Your task to perform on an android device: Open Youtube and go to the subscriptions tab Image 0: 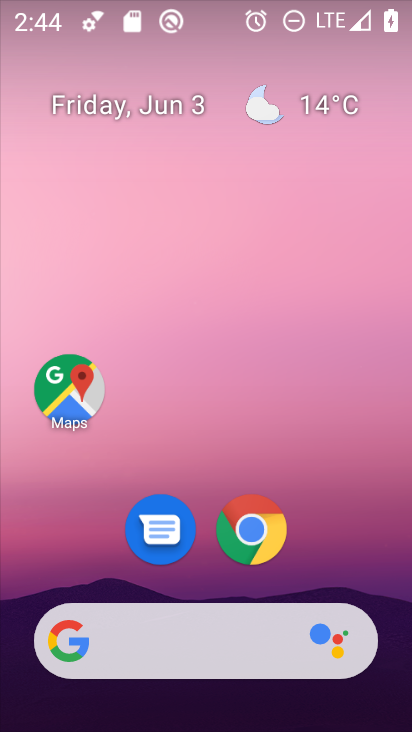
Step 0: drag from (387, 563) to (369, 263)
Your task to perform on an android device: Open Youtube and go to the subscriptions tab Image 1: 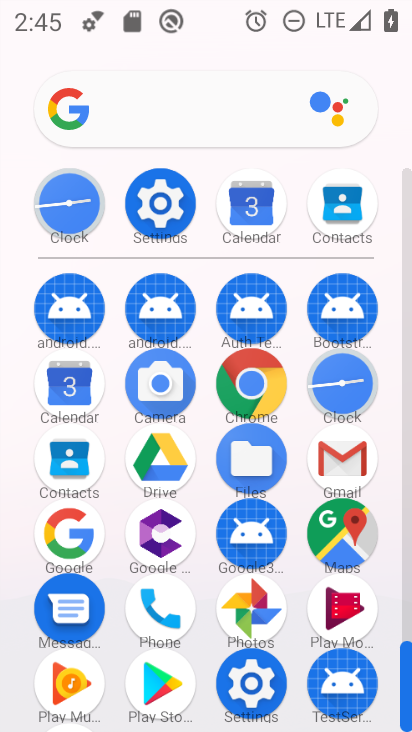
Step 1: drag from (381, 555) to (78, 688)
Your task to perform on an android device: Open Youtube and go to the subscriptions tab Image 2: 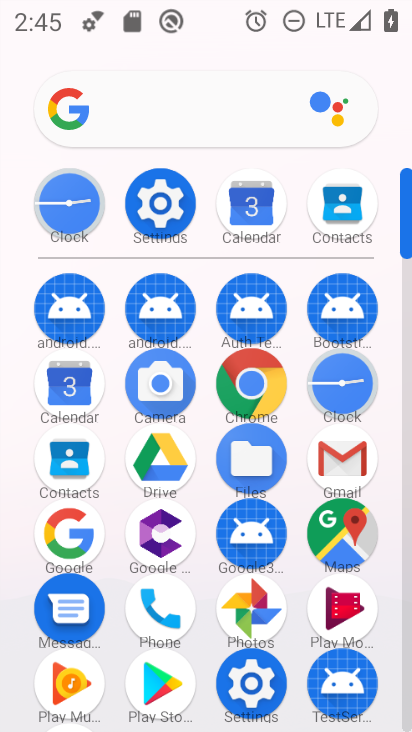
Step 2: drag from (380, 648) to (384, 453)
Your task to perform on an android device: Open Youtube and go to the subscriptions tab Image 3: 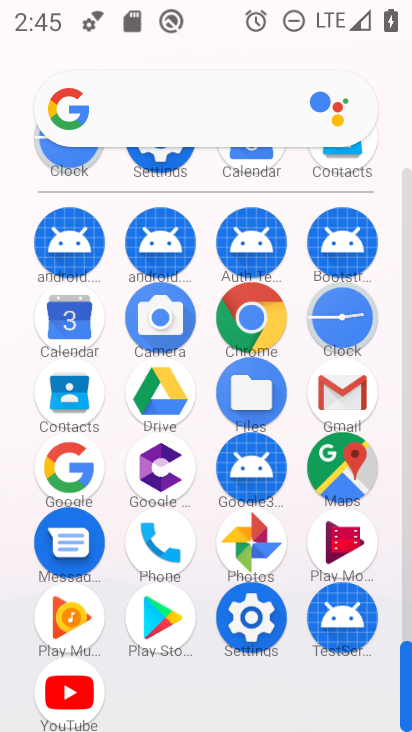
Step 3: click (75, 689)
Your task to perform on an android device: Open Youtube and go to the subscriptions tab Image 4: 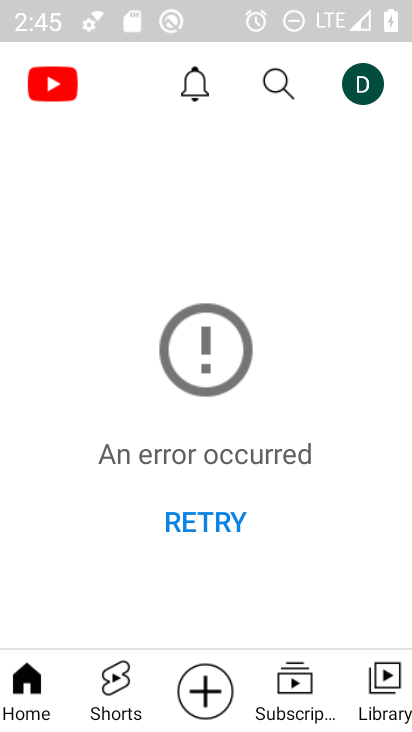
Step 4: click (305, 710)
Your task to perform on an android device: Open Youtube and go to the subscriptions tab Image 5: 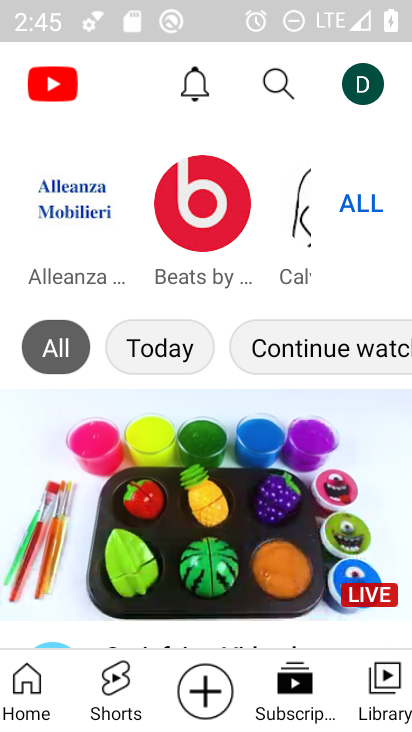
Step 5: task complete